Your task to perform on an android device: create a new album in the google photos Image 0: 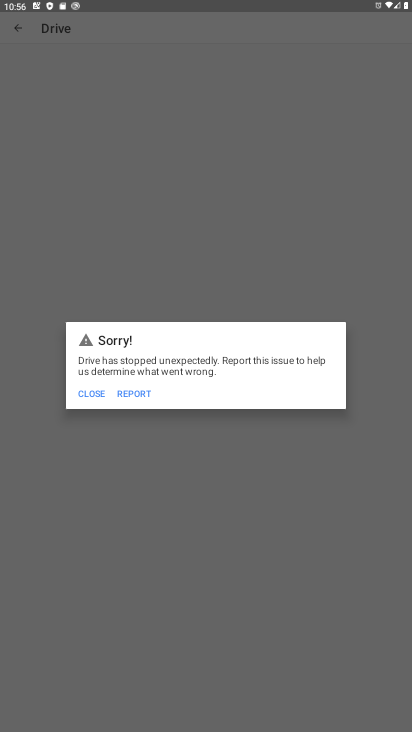
Step 0: press home button
Your task to perform on an android device: create a new album in the google photos Image 1: 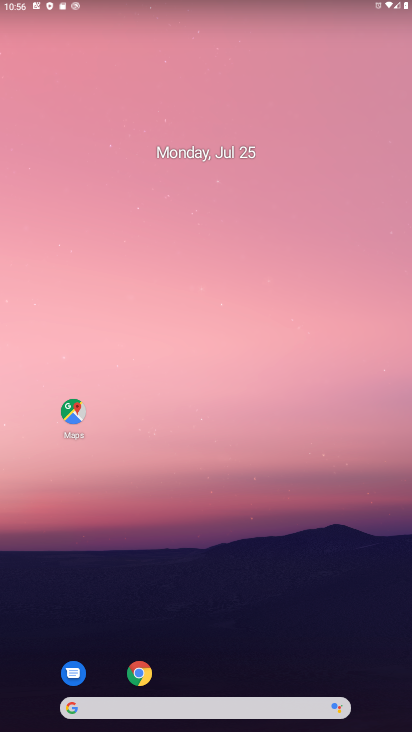
Step 1: drag from (224, 670) to (249, 10)
Your task to perform on an android device: create a new album in the google photos Image 2: 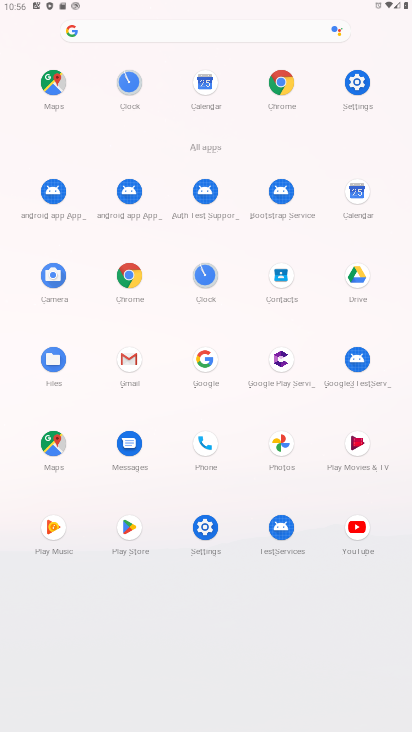
Step 2: click (276, 441)
Your task to perform on an android device: create a new album in the google photos Image 3: 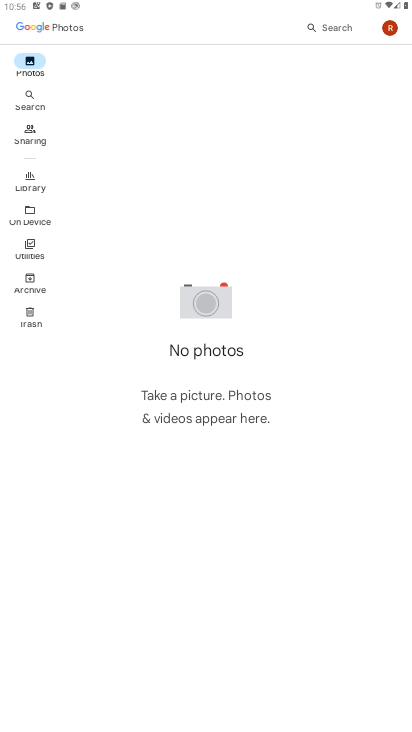
Step 3: click (28, 123)
Your task to perform on an android device: create a new album in the google photos Image 4: 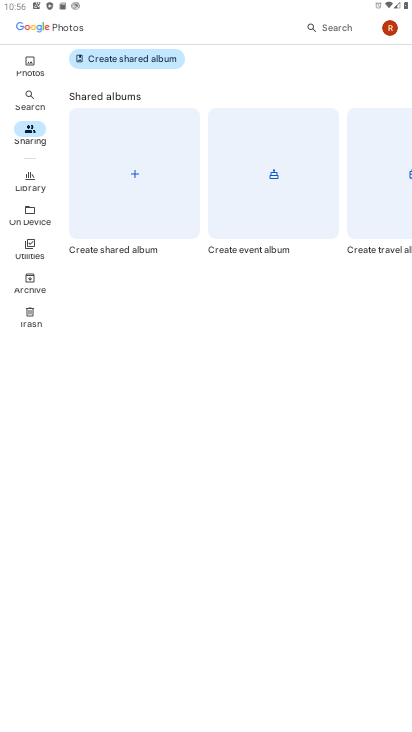
Step 4: click (121, 56)
Your task to perform on an android device: create a new album in the google photos Image 5: 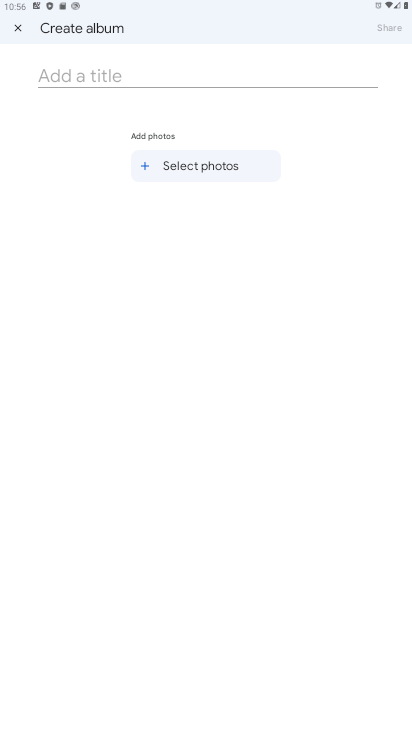
Step 5: click (148, 164)
Your task to perform on an android device: create a new album in the google photos Image 6: 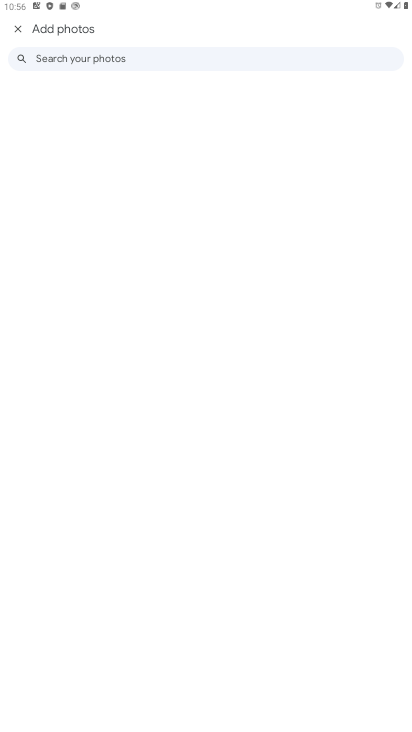
Step 6: task complete